Your task to perform on an android device: When is my next appointment? Image 0: 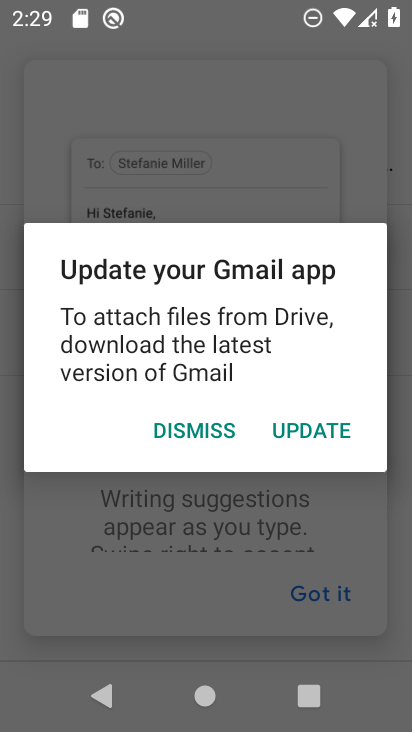
Step 0: press home button
Your task to perform on an android device: When is my next appointment? Image 1: 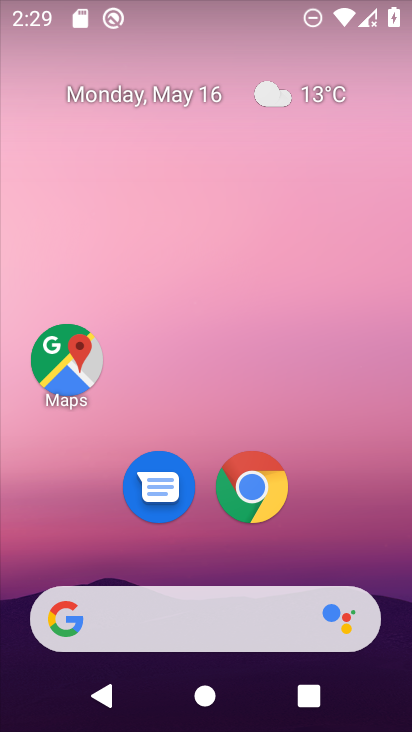
Step 1: drag from (387, 448) to (371, 248)
Your task to perform on an android device: When is my next appointment? Image 2: 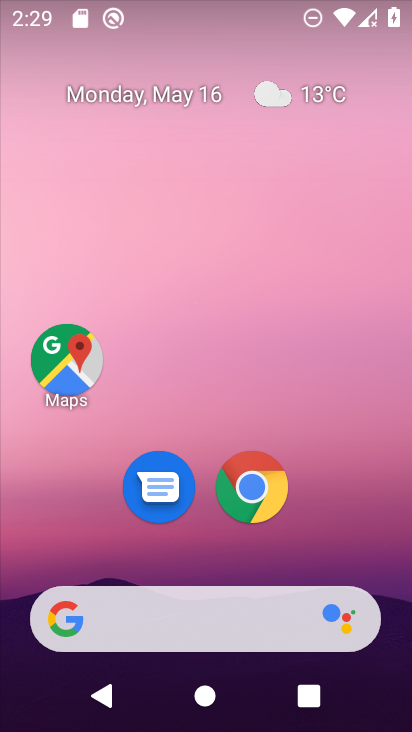
Step 2: drag from (396, 590) to (366, 303)
Your task to perform on an android device: When is my next appointment? Image 3: 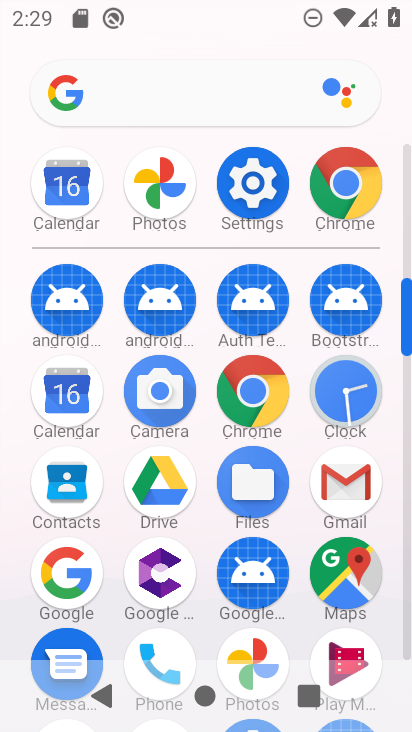
Step 3: click (43, 380)
Your task to perform on an android device: When is my next appointment? Image 4: 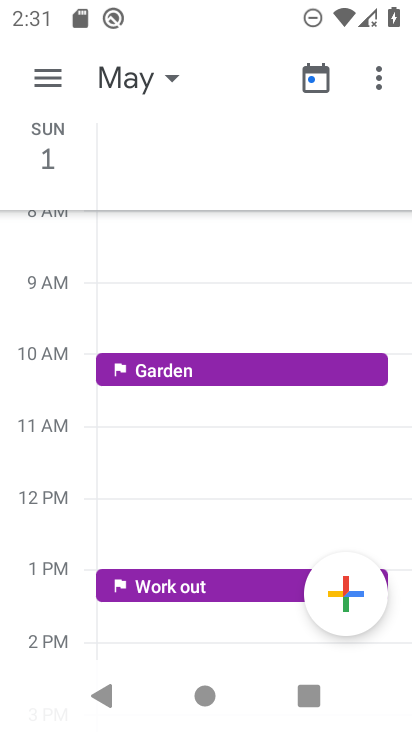
Step 4: click (56, 67)
Your task to perform on an android device: When is my next appointment? Image 5: 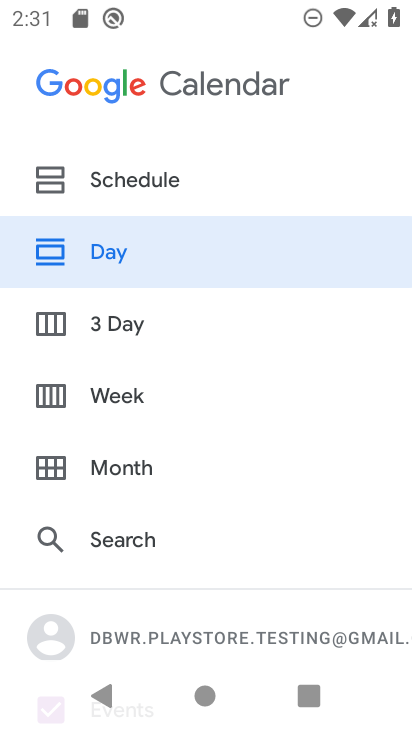
Step 5: drag from (217, 522) to (241, 294)
Your task to perform on an android device: When is my next appointment? Image 6: 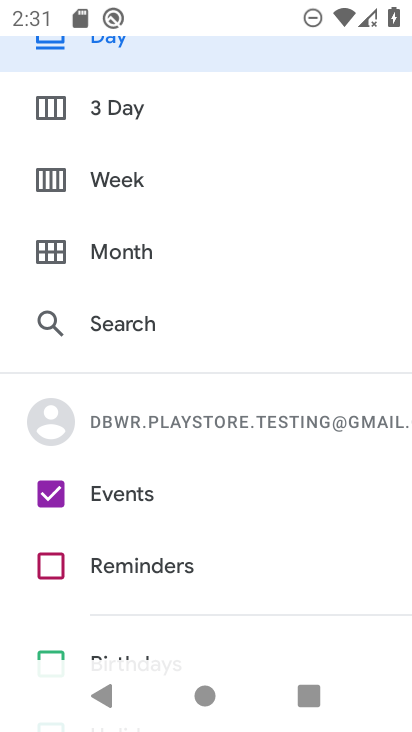
Step 6: drag from (256, 575) to (292, 283)
Your task to perform on an android device: When is my next appointment? Image 7: 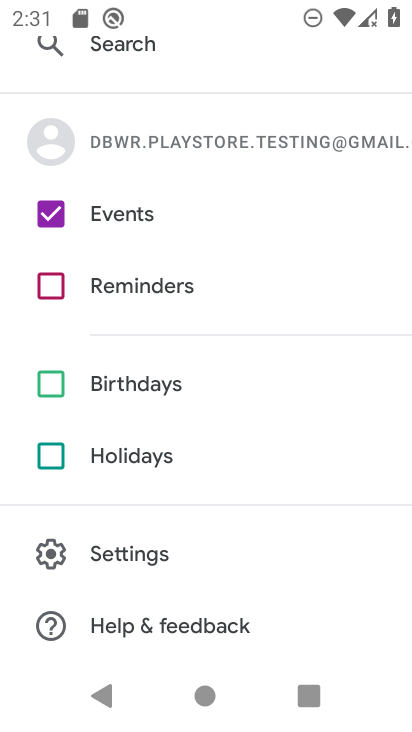
Step 7: drag from (239, 226) to (286, 509)
Your task to perform on an android device: When is my next appointment? Image 8: 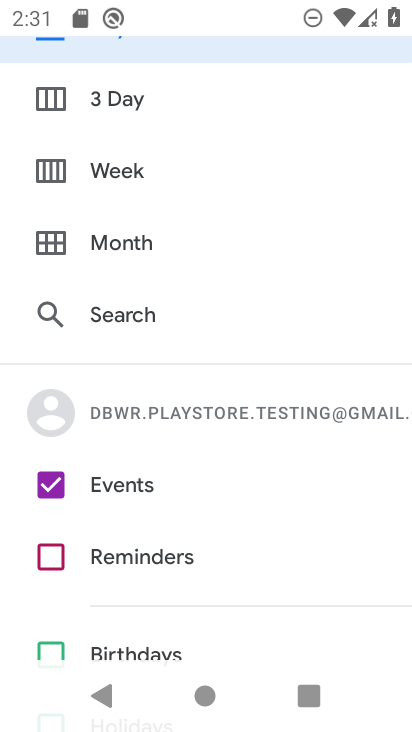
Step 8: drag from (311, 180) to (339, 430)
Your task to perform on an android device: When is my next appointment? Image 9: 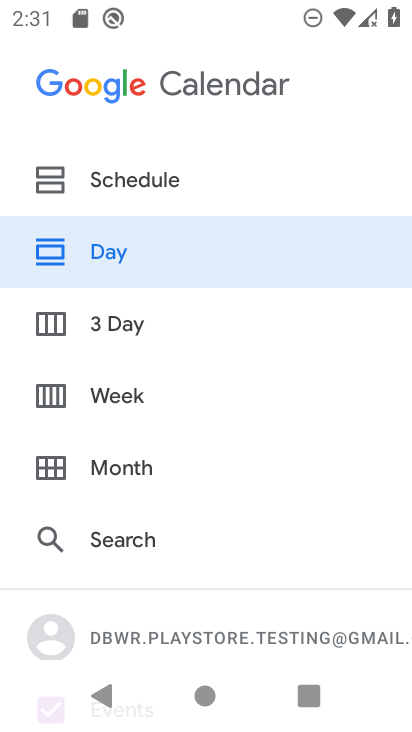
Step 9: drag from (338, 175) to (364, 429)
Your task to perform on an android device: When is my next appointment? Image 10: 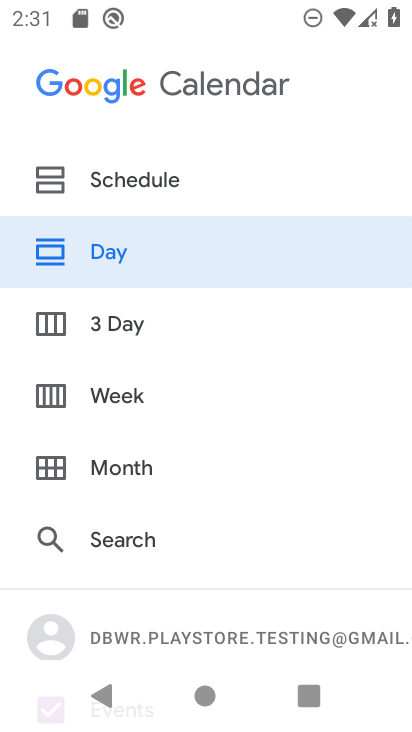
Step 10: click (116, 176)
Your task to perform on an android device: When is my next appointment? Image 11: 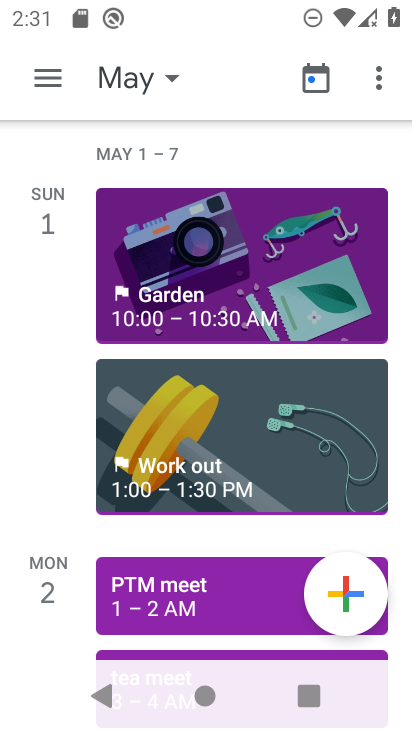
Step 11: task complete